Your task to perform on an android device: What's on my calendar today? Image 0: 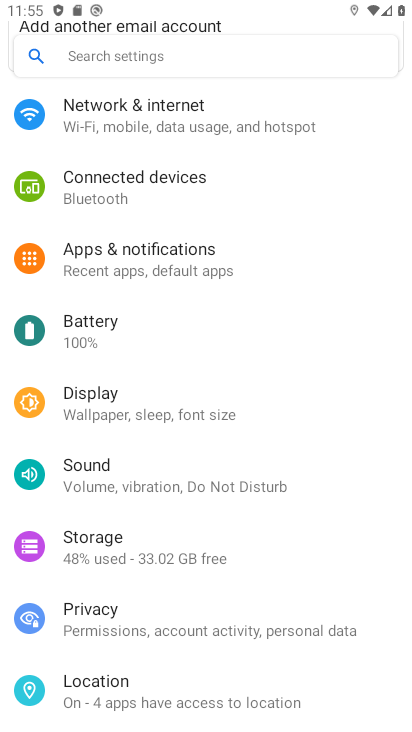
Step 0: press home button
Your task to perform on an android device: What's on my calendar today? Image 1: 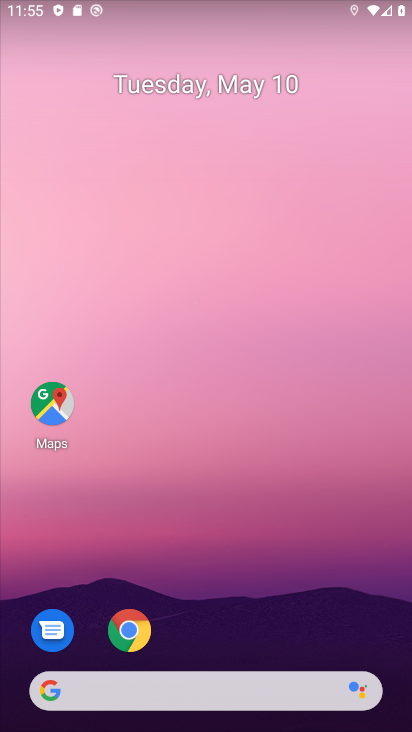
Step 1: drag from (187, 666) to (173, 0)
Your task to perform on an android device: What's on my calendar today? Image 2: 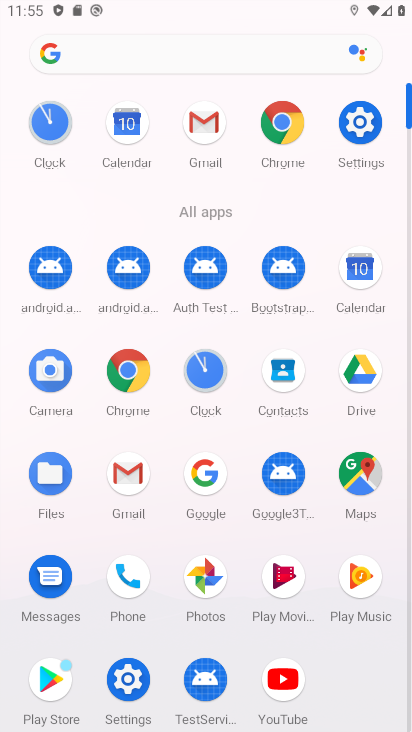
Step 2: click (364, 280)
Your task to perform on an android device: What's on my calendar today? Image 3: 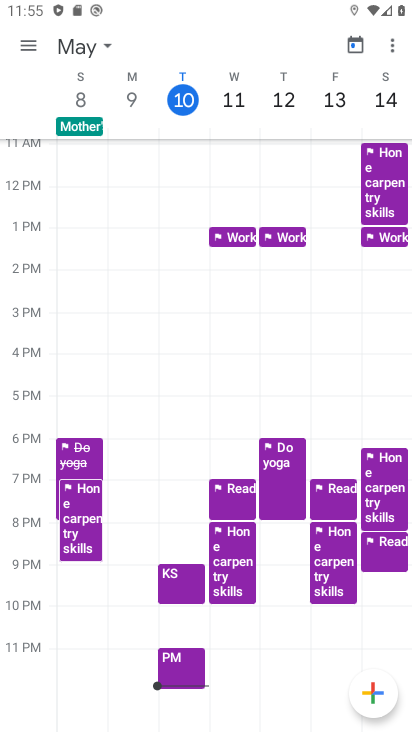
Step 3: click (181, 100)
Your task to perform on an android device: What's on my calendar today? Image 4: 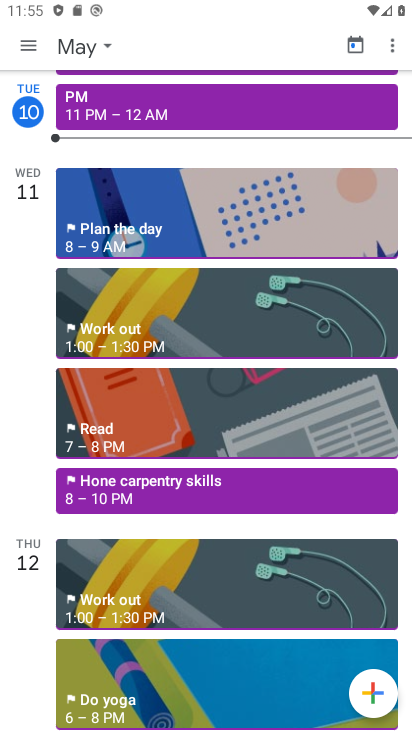
Step 4: task complete